Your task to perform on an android device: turn on location history Image 0: 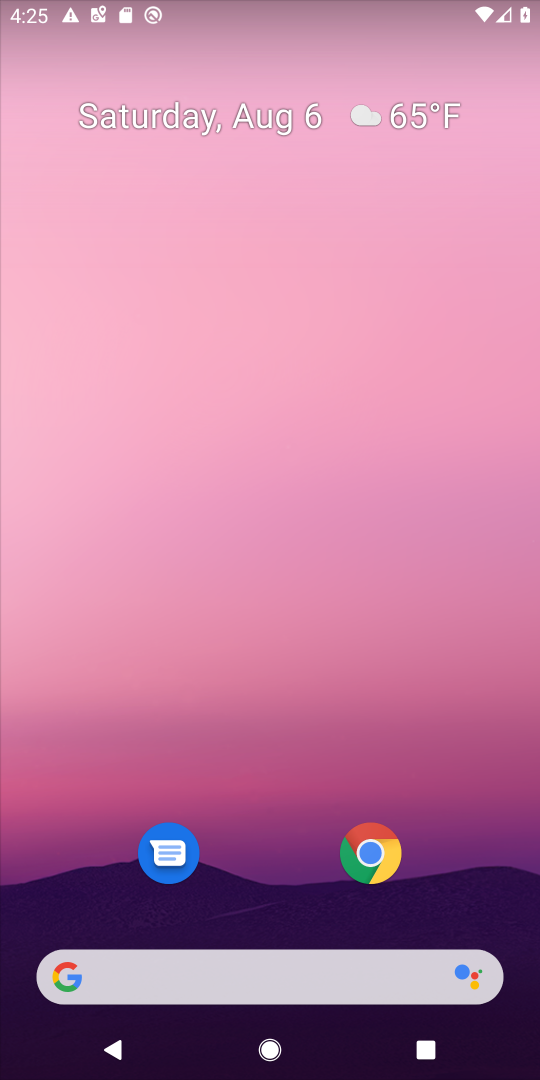
Step 0: drag from (232, 853) to (383, 84)
Your task to perform on an android device: turn on location history Image 1: 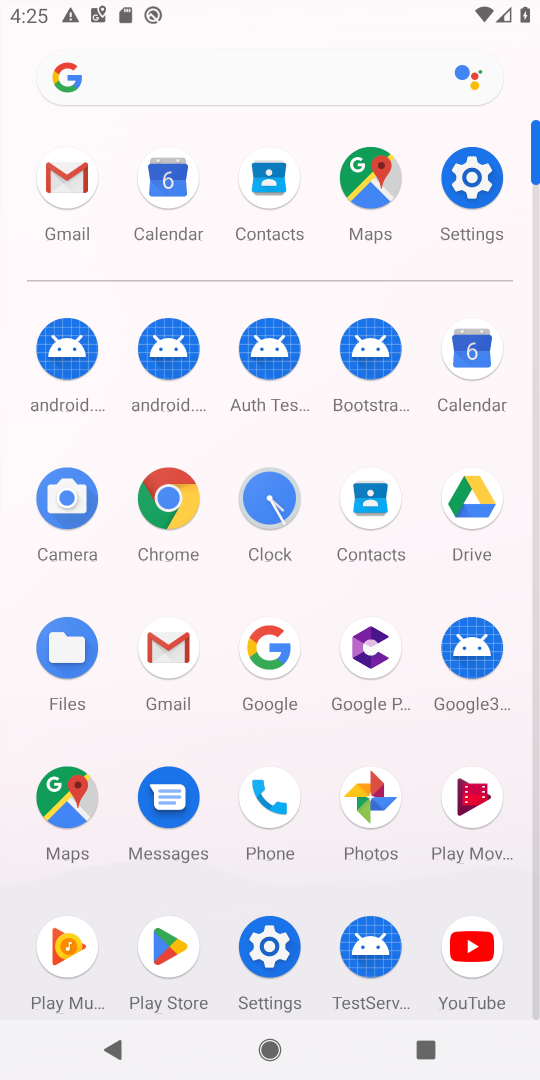
Step 1: click (465, 179)
Your task to perform on an android device: turn on location history Image 2: 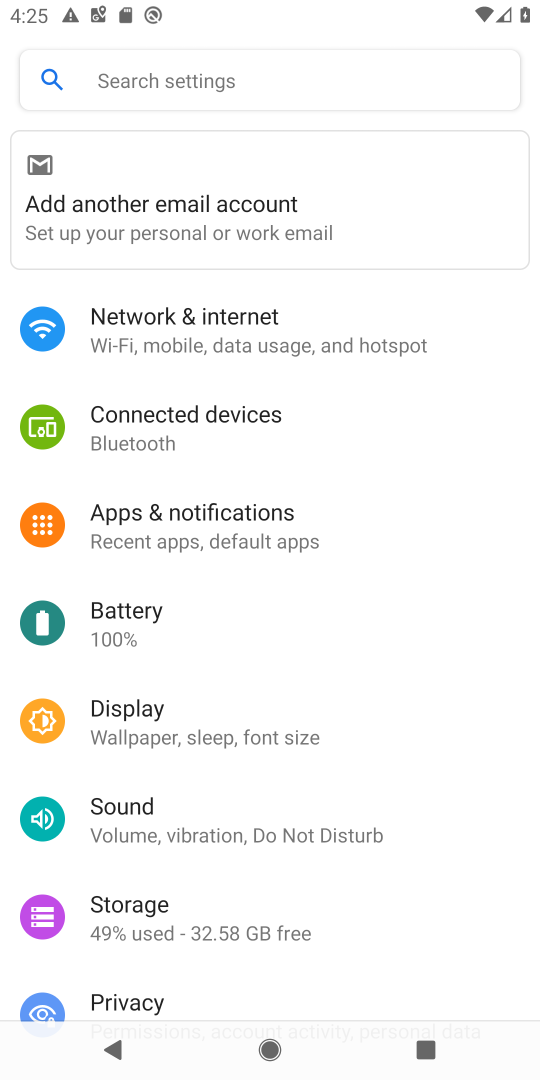
Step 2: drag from (174, 925) to (329, 215)
Your task to perform on an android device: turn on location history Image 3: 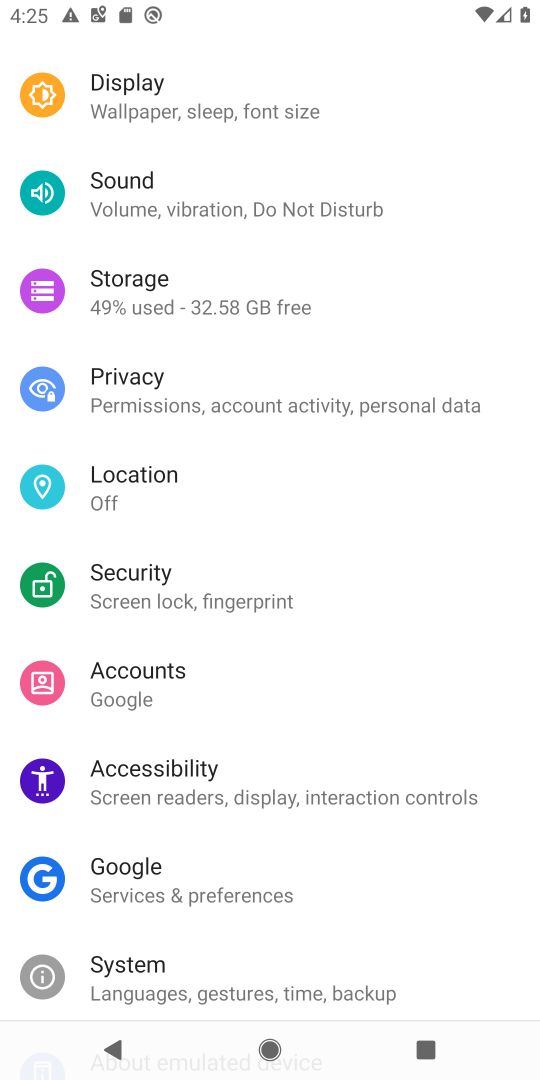
Step 3: click (175, 494)
Your task to perform on an android device: turn on location history Image 4: 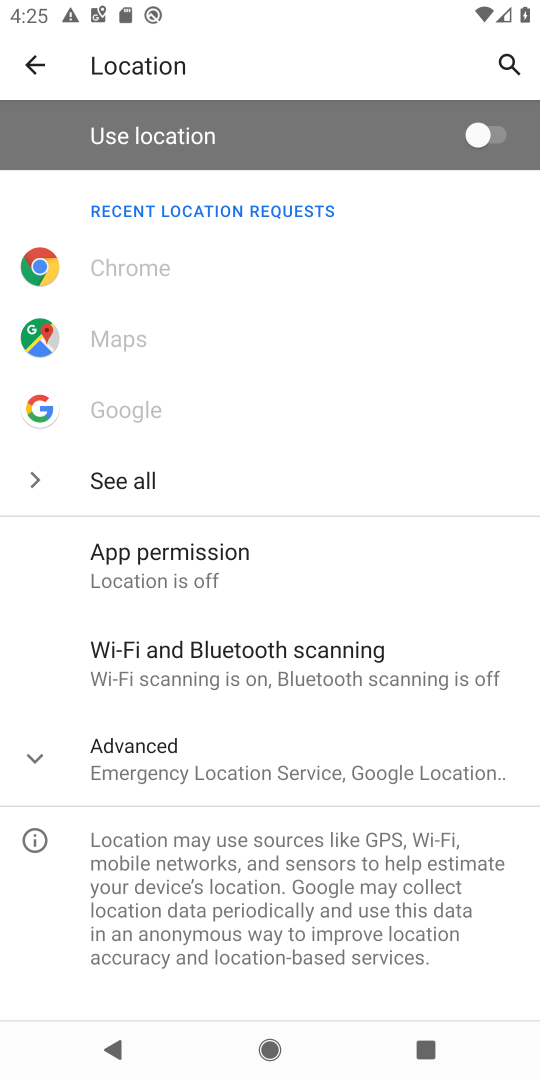
Step 4: click (263, 765)
Your task to perform on an android device: turn on location history Image 5: 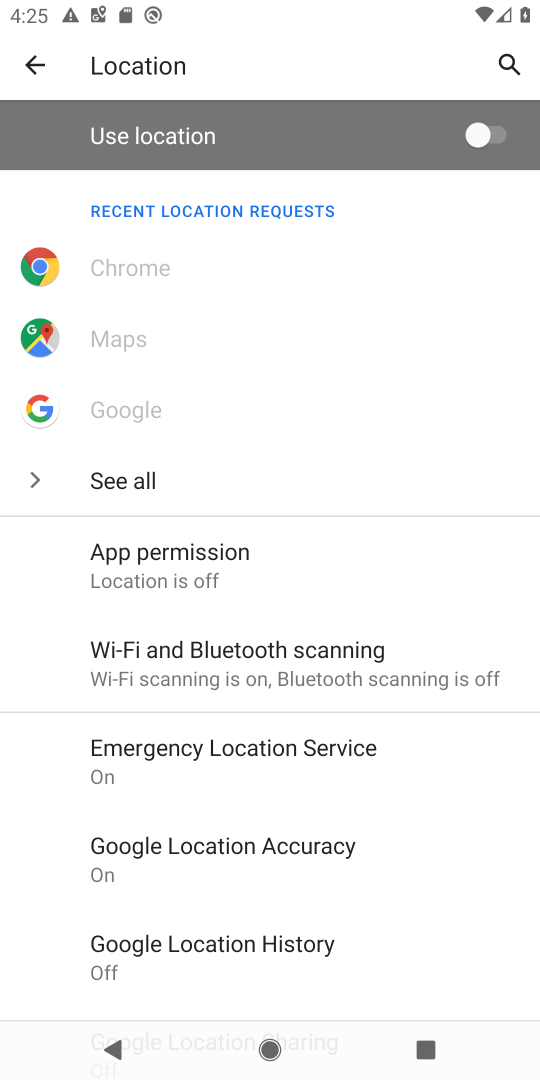
Step 5: click (205, 962)
Your task to perform on an android device: turn on location history Image 6: 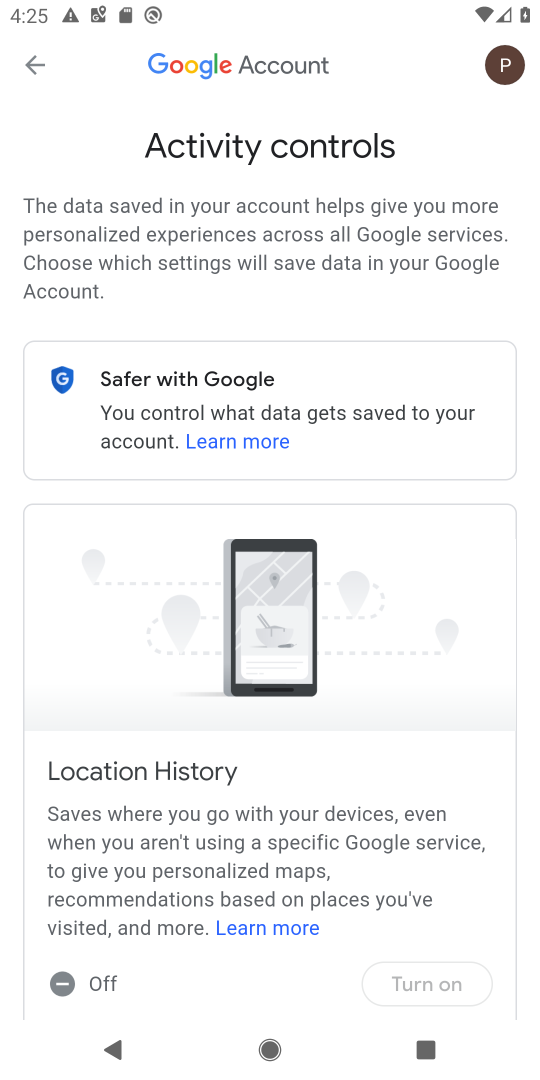
Step 6: task complete